Your task to perform on an android device: Open settings on Google Maps Image 0: 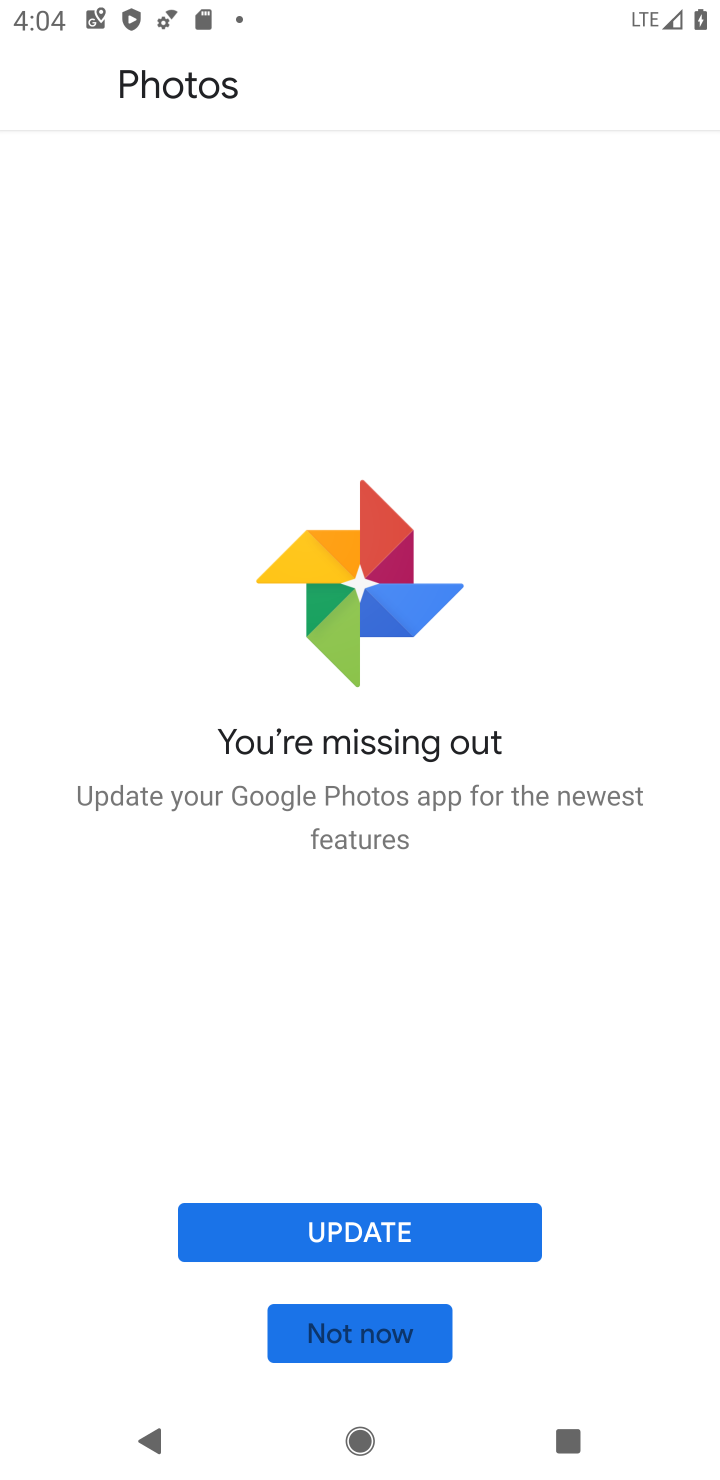
Step 0: press home button
Your task to perform on an android device: Open settings on Google Maps Image 1: 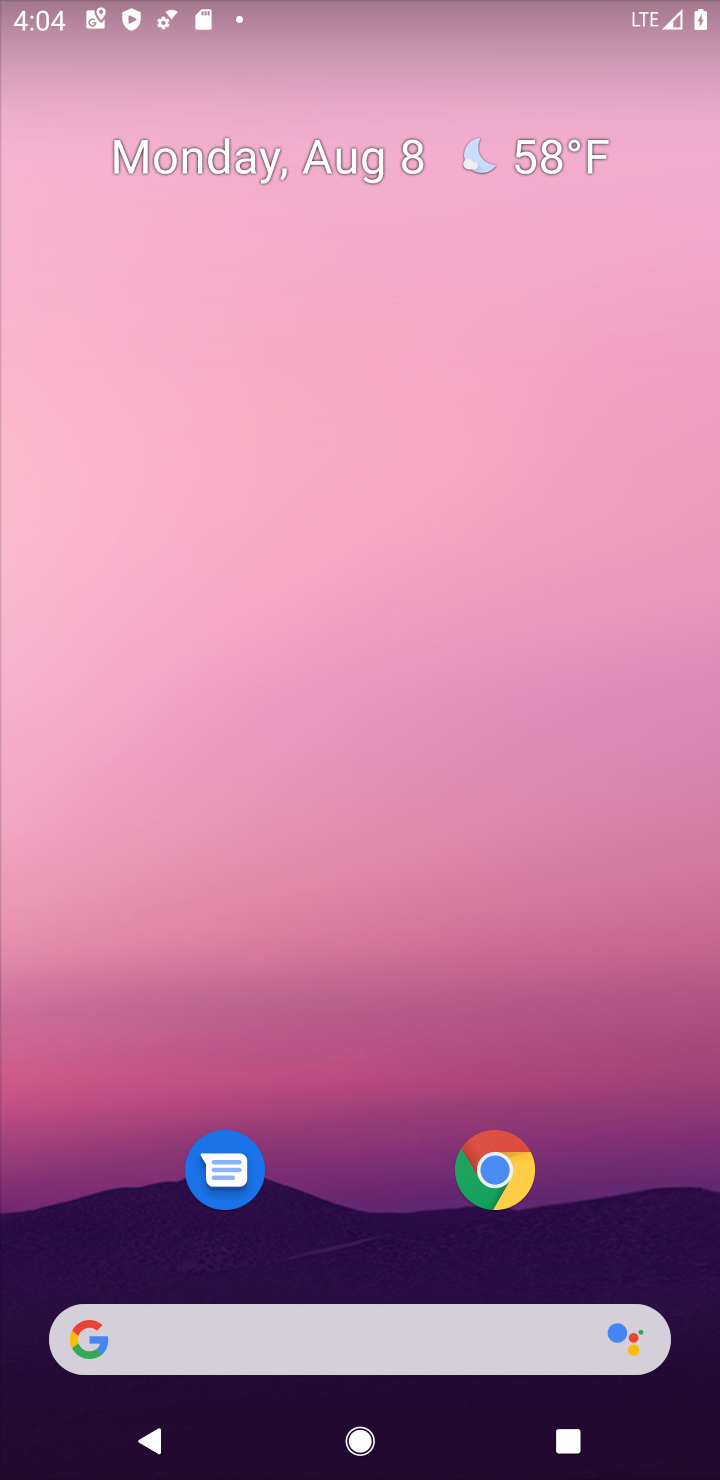
Step 1: drag from (334, 794) to (337, 402)
Your task to perform on an android device: Open settings on Google Maps Image 2: 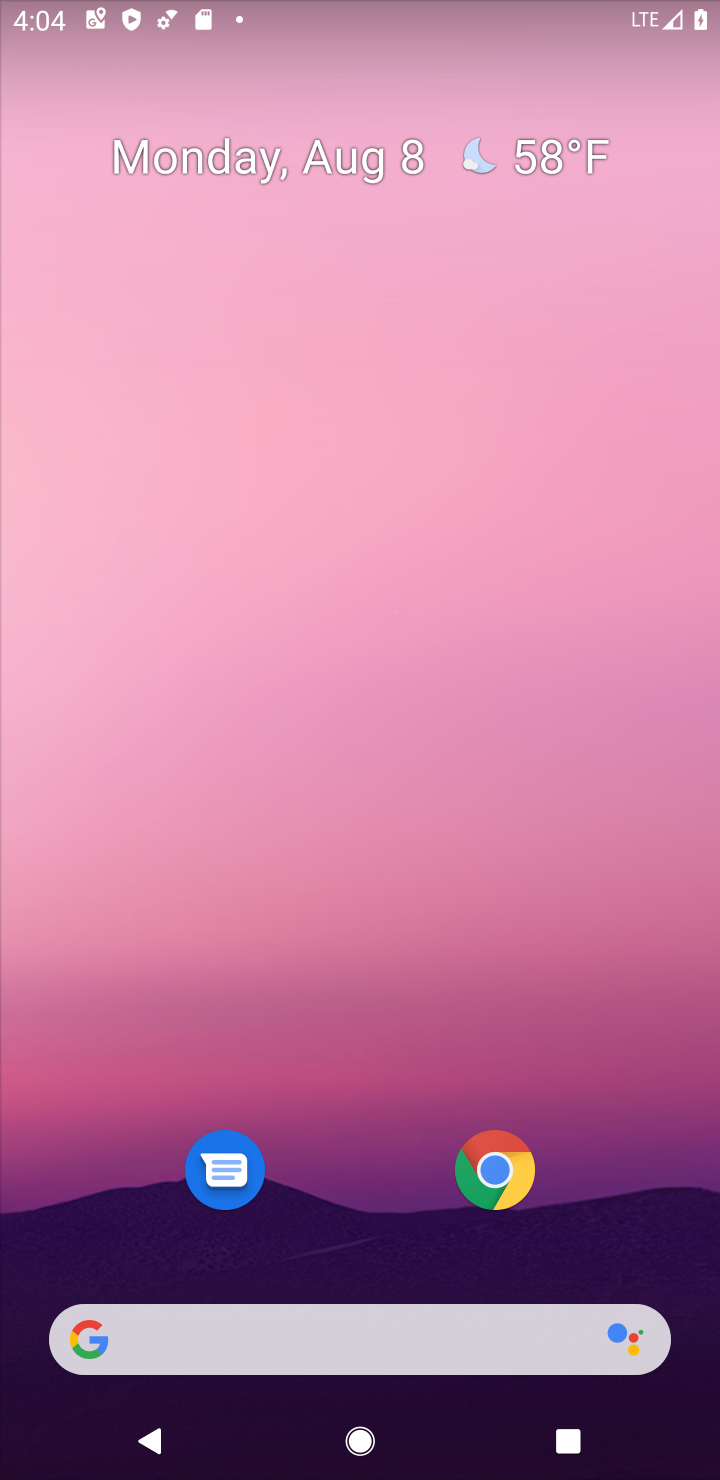
Step 2: drag from (374, 1087) to (315, 430)
Your task to perform on an android device: Open settings on Google Maps Image 3: 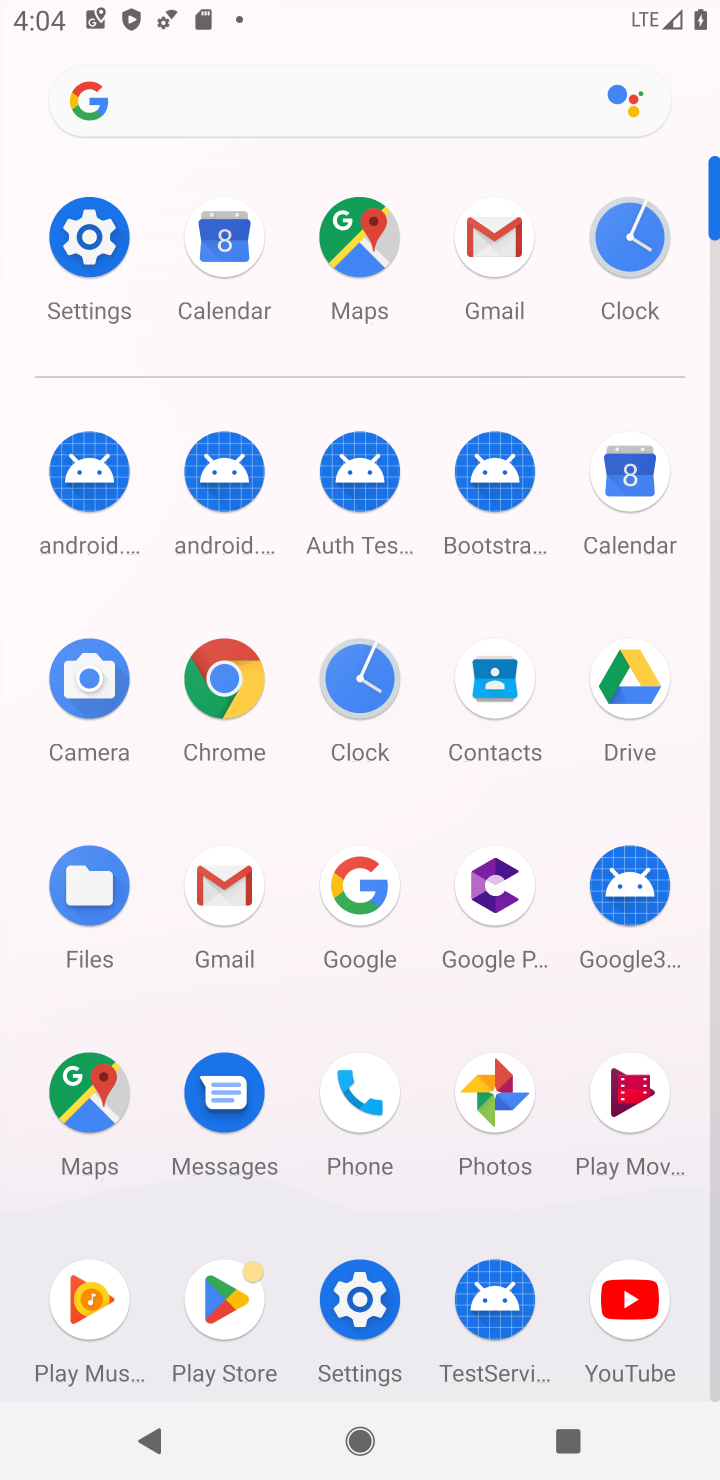
Step 3: click (400, 265)
Your task to perform on an android device: Open settings on Google Maps Image 4: 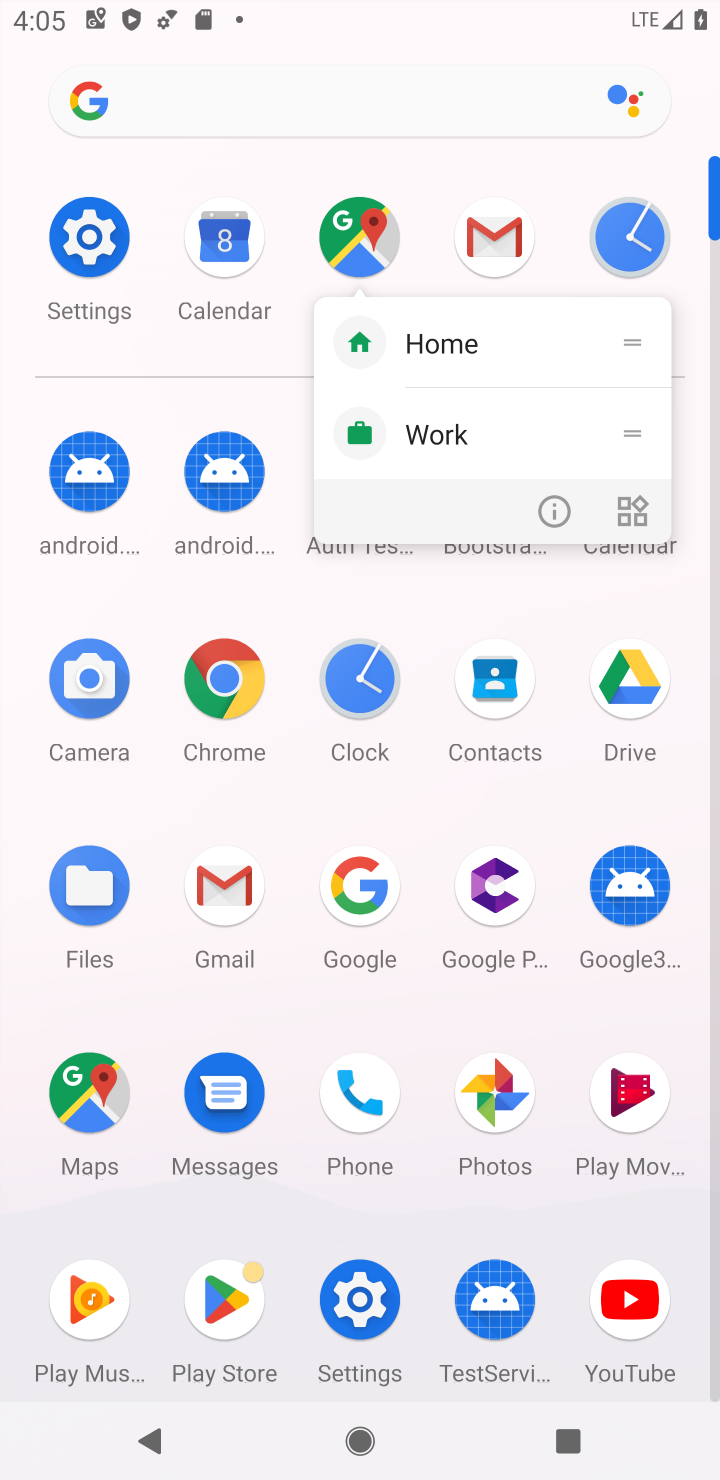
Step 4: click (341, 228)
Your task to perform on an android device: Open settings on Google Maps Image 5: 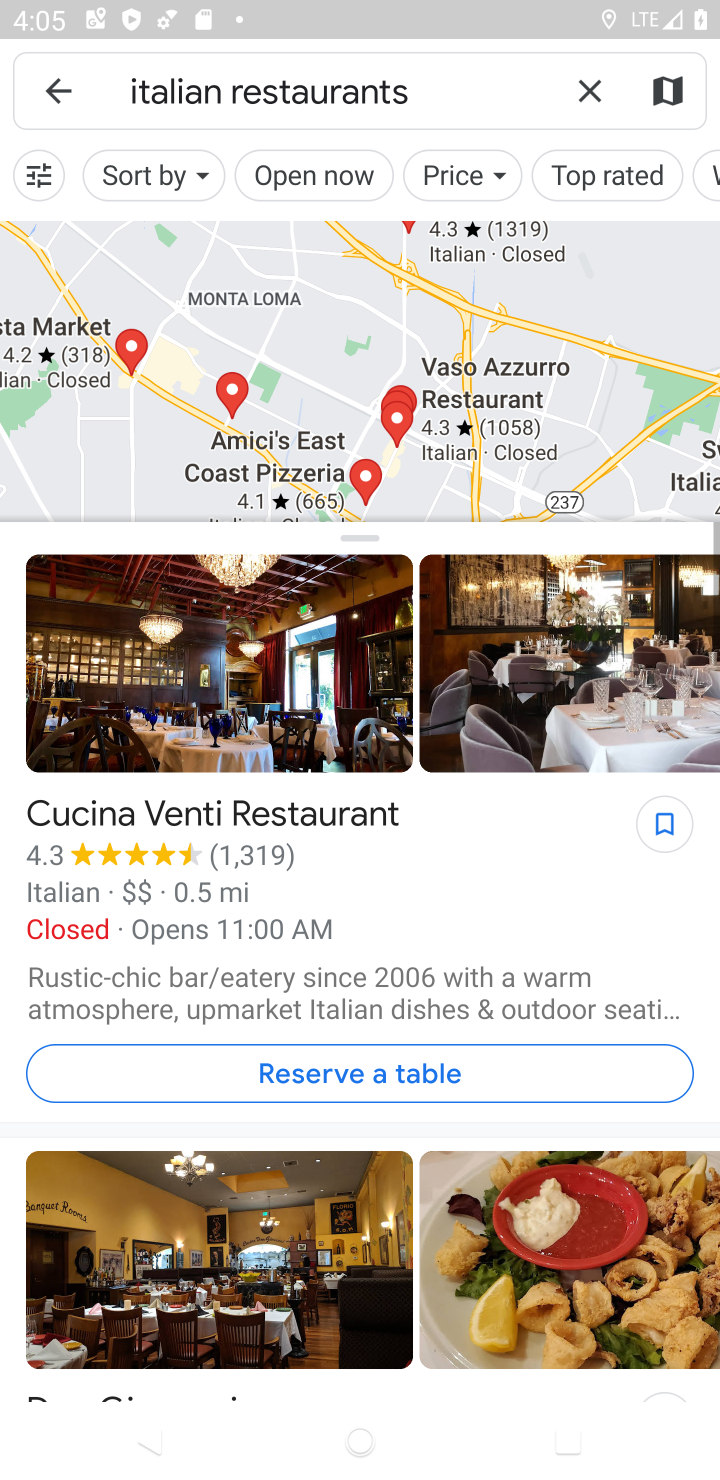
Step 5: click (52, 105)
Your task to perform on an android device: Open settings on Google Maps Image 6: 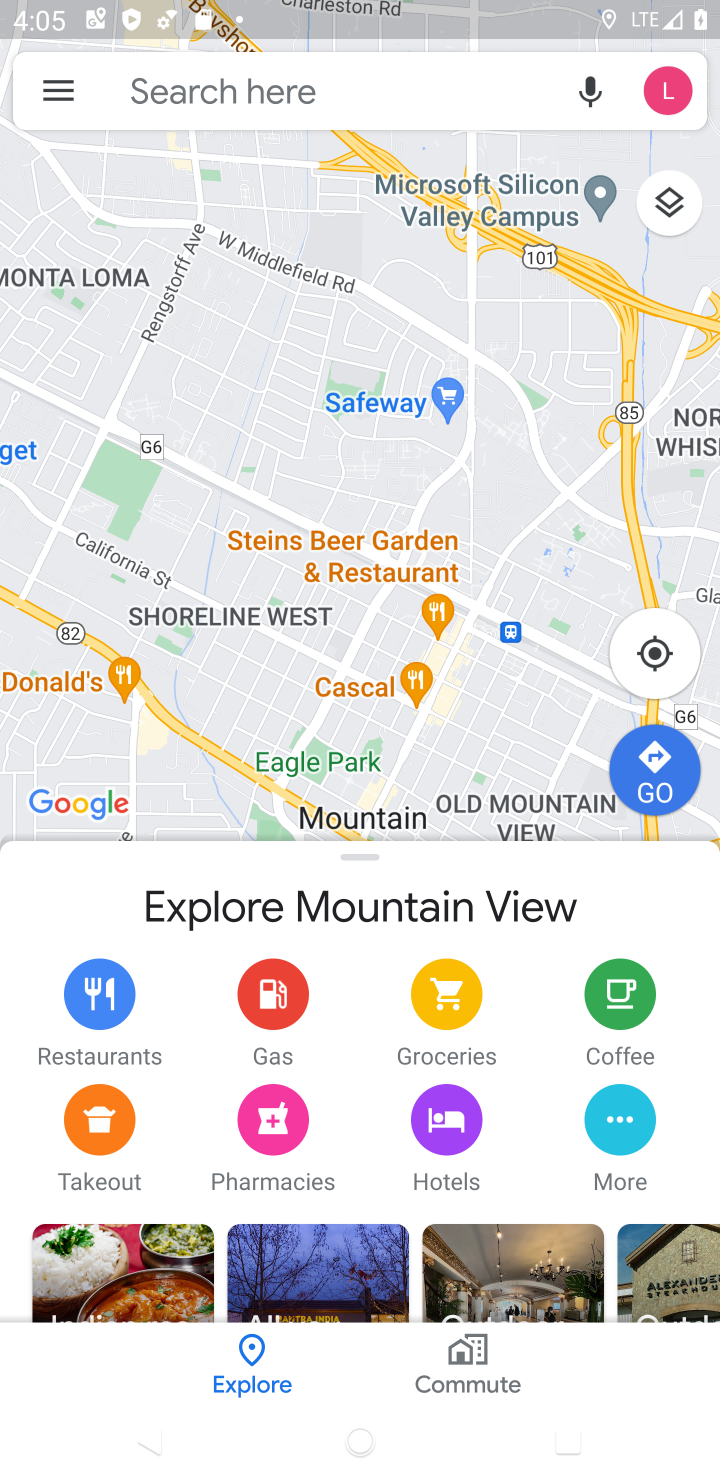
Step 6: click (48, 59)
Your task to perform on an android device: Open settings on Google Maps Image 7: 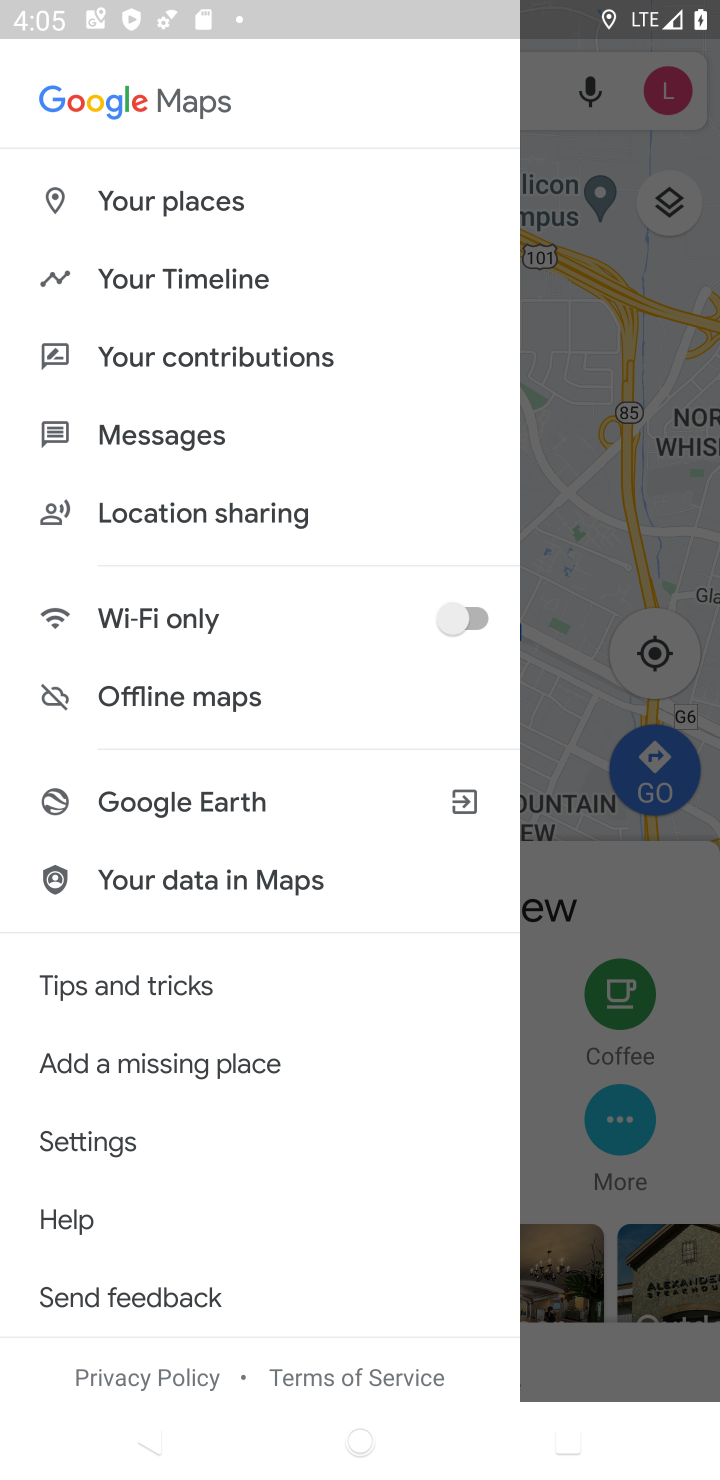
Step 7: click (123, 1167)
Your task to perform on an android device: Open settings on Google Maps Image 8: 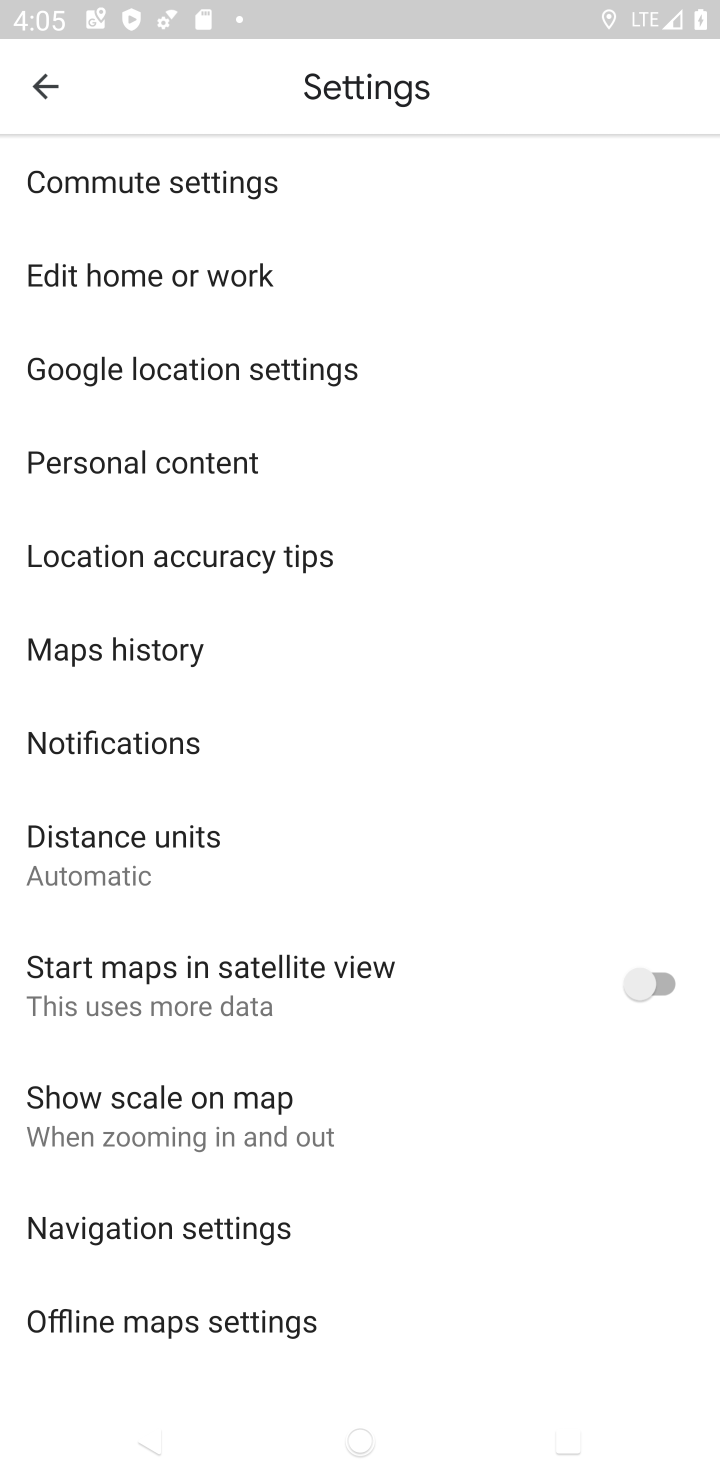
Step 8: task complete